Your task to perform on an android device: empty trash in google photos Image 0: 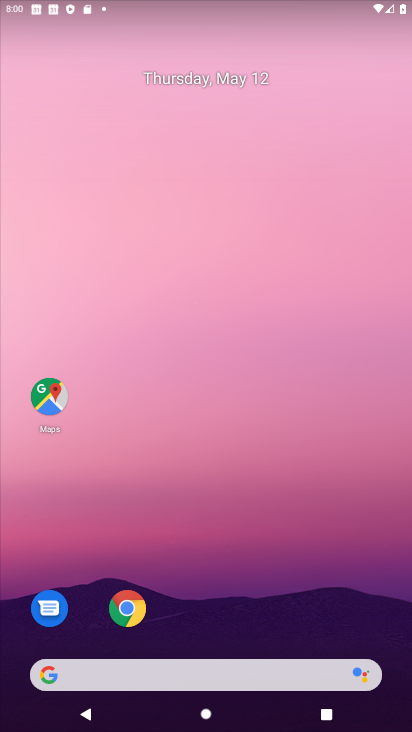
Step 0: drag from (231, 620) to (205, 238)
Your task to perform on an android device: empty trash in google photos Image 1: 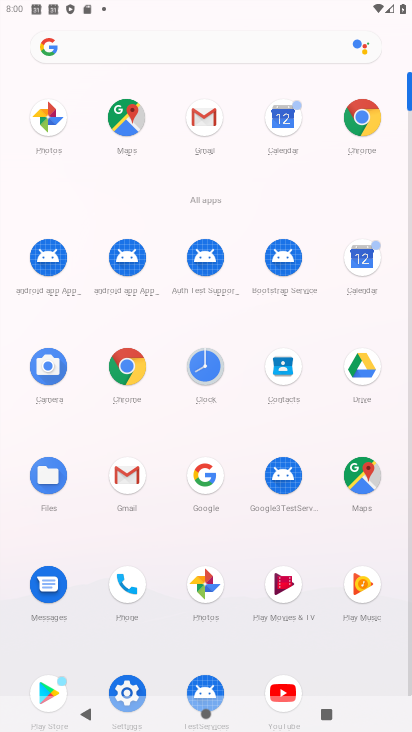
Step 1: click (60, 126)
Your task to perform on an android device: empty trash in google photos Image 2: 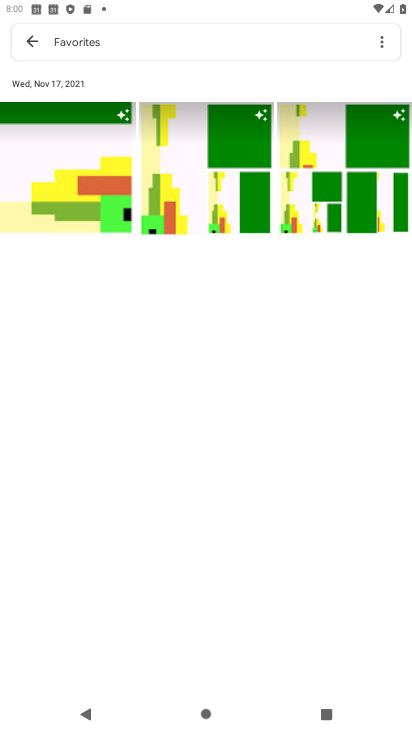
Step 2: click (32, 49)
Your task to perform on an android device: empty trash in google photos Image 3: 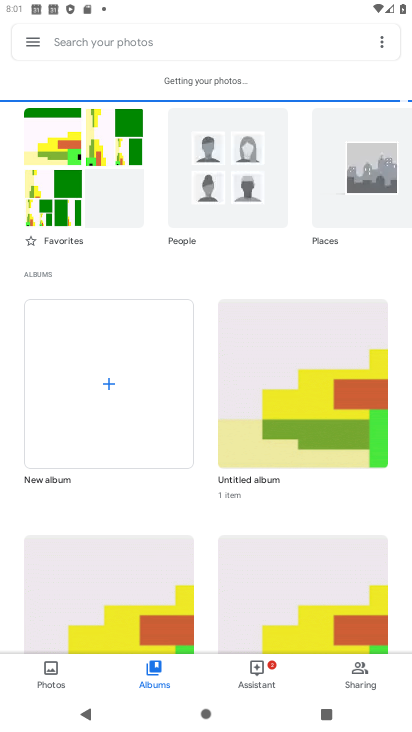
Step 3: click (32, 49)
Your task to perform on an android device: empty trash in google photos Image 4: 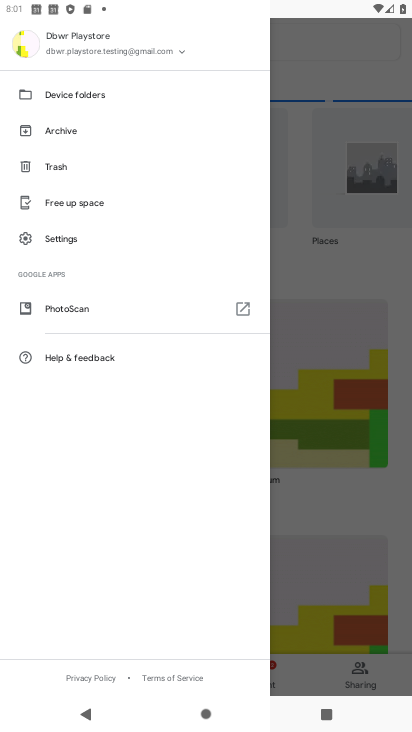
Step 4: click (58, 165)
Your task to perform on an android device: empty trash in google photos Image 5: 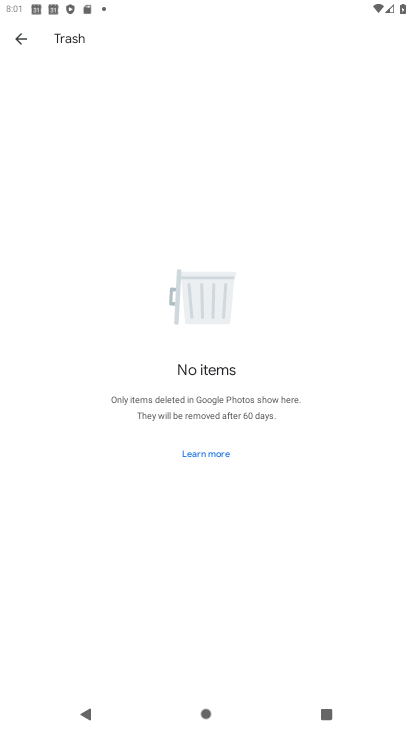
Step 5: task complete